Your task to perform on an android device: set the stopwatch Image 0: 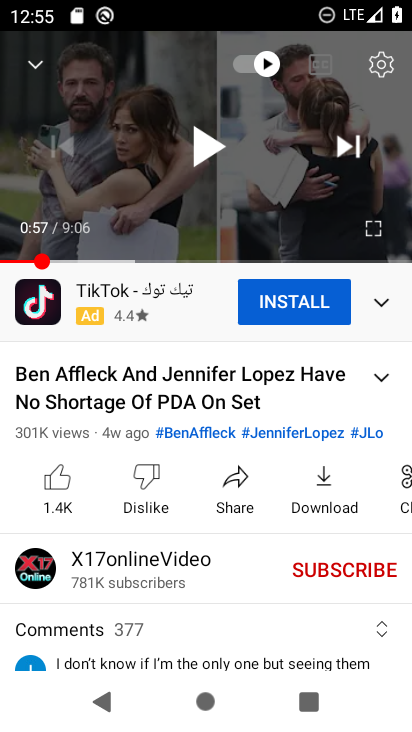
Step 0: press home button
Your task to perform on an android device: set the stopwatch Image 1: 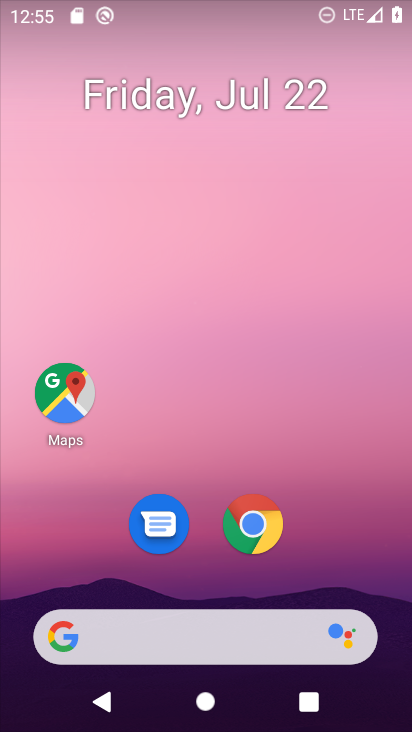
Step 1: drag from (314, 533) to (339, 30)
Your task to perform on an android device: set the stopwatch Image 2: 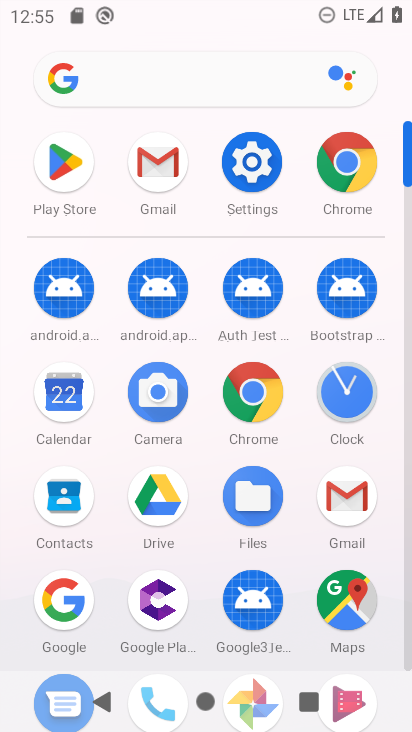
Step 2: click (353, 399)
Your task to perform on an android device: set the stopwatch Image 3: 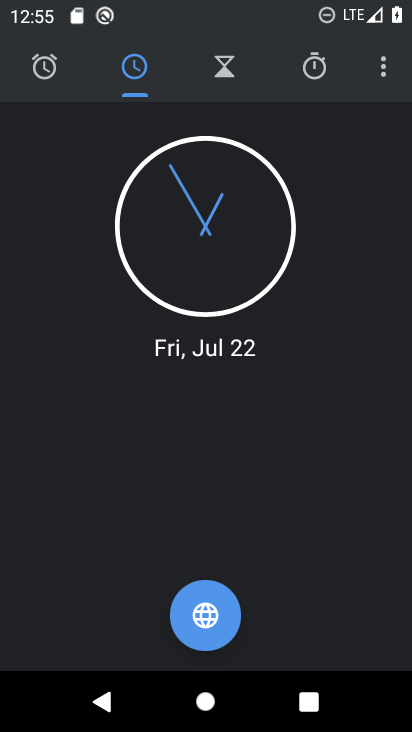
Step 3: click (313, 70)
Your task to perform on an android device: set the stopwatch Image 4: 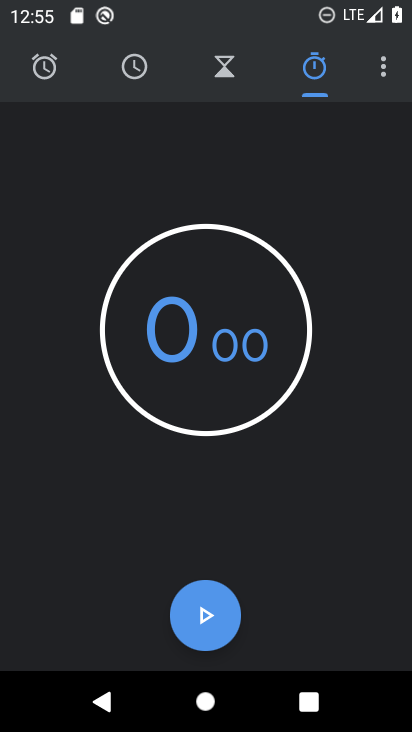
Step 4: task complete